Your task to perform on an android device: turn on showing notifications on the lock screen Image 0: 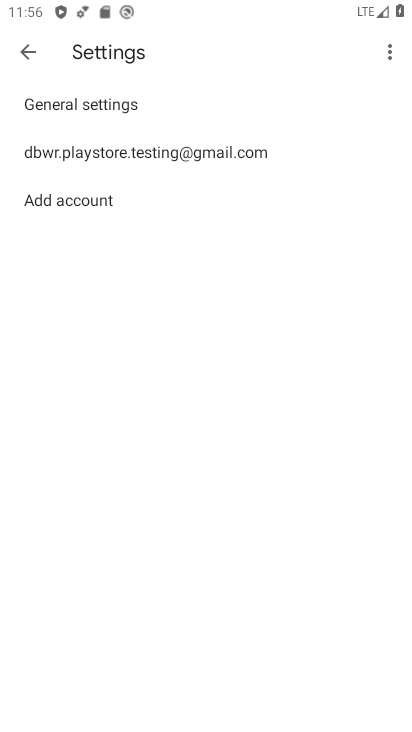
Step 0: press home button
Your task to perform on an android device: turn on showing notifications on the lock screen Image 1: 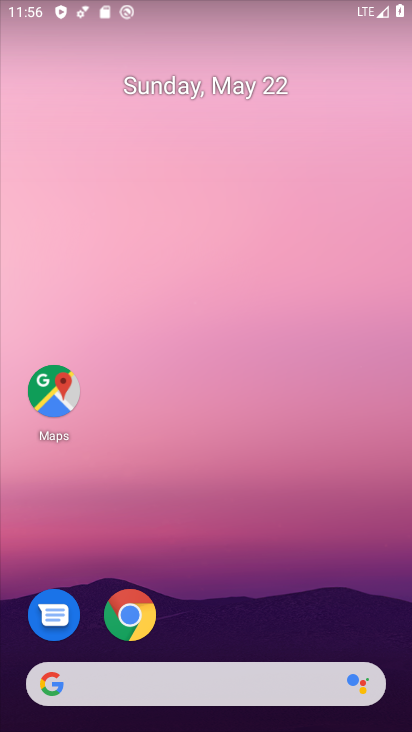
Step 1: drag from (170, 613) to (309, 7)
Your task to perform on an android device: turn on showing notifications on the lock screen Image 2: 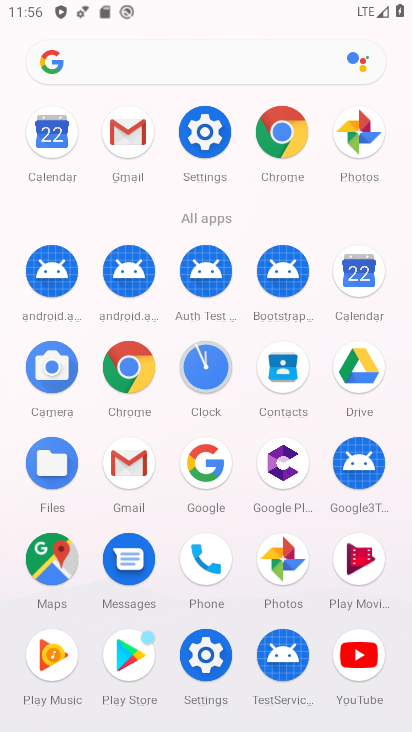
Step 2: click (210, 128)
Your task to perform on an android device: turn on showing notifications on the lock screen Image 3: 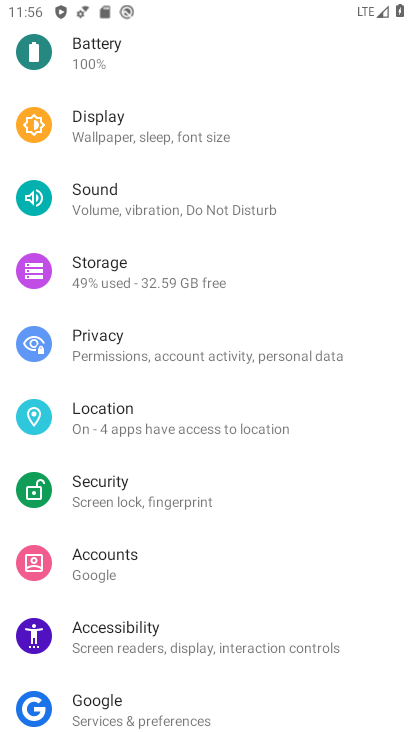
Step 3: drag from (210, 130) to (103, 629)
Your task to perform on an android device: turn on showing notifications on the lock screen Image 4: 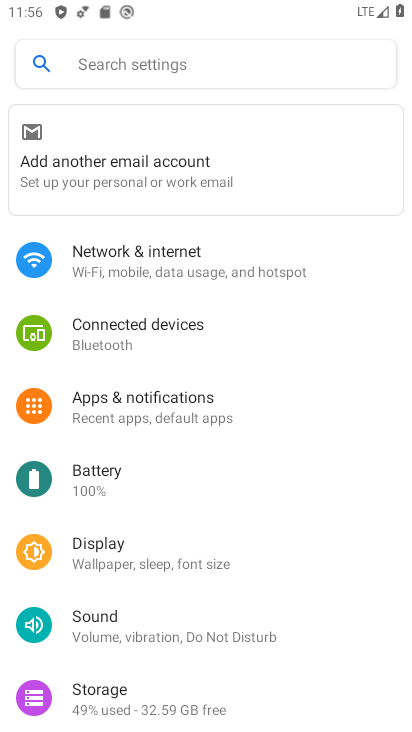
Step 4: click (170, 407)
Your task to perform on an android device: turn on showing notifications on the lock screen Image 5: 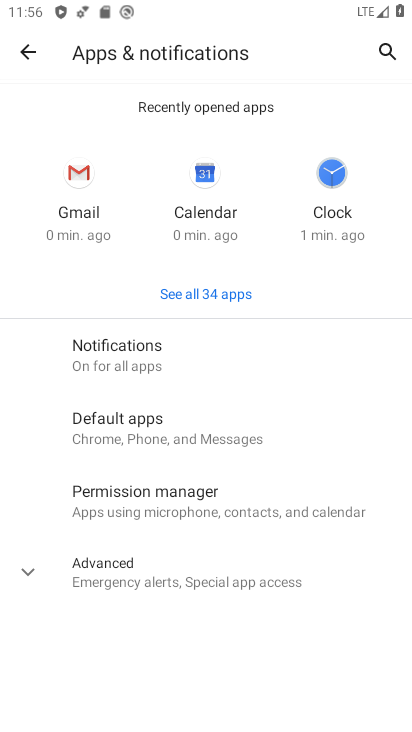
Step 5: click (136, 351)
Your task to perform on an android device: turn on showing notifications on the lock screen Image 6: 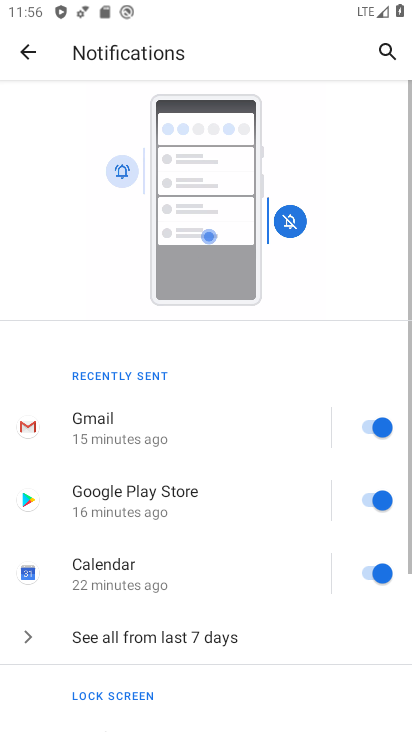
Step 6: drag from (131, 674) to (248, 156)
Your task to perform on an android device: turn on showing notifications on the lock screen Image 7: 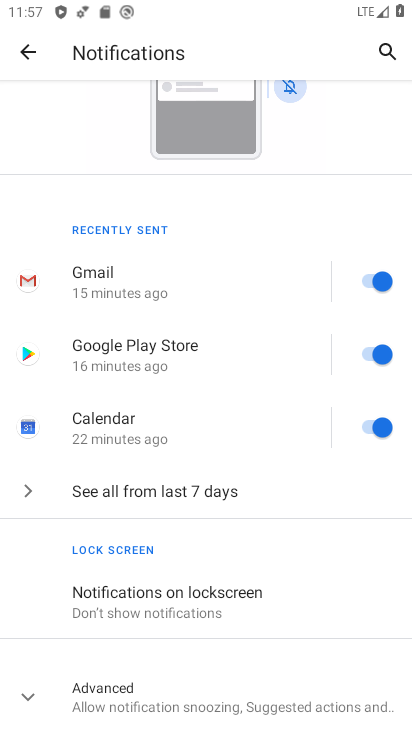
Step 7: click (151, 610)
Your task to perform on an android device: turn on showing notifications on the lock screen Image 8: 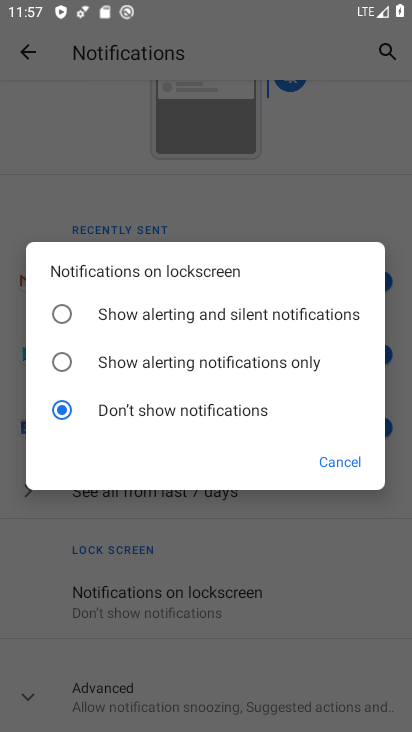
Step 8: click (54, 304)
Your task to perform on an android device: turn on showing notifications on the lock screen Image 9: 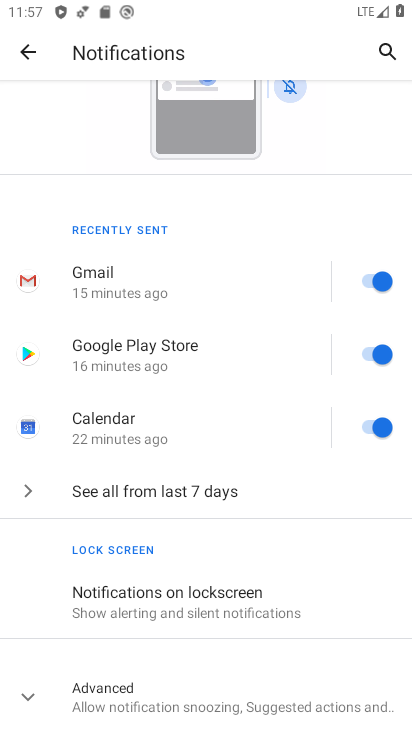
Step 9: task complete